Your task to perform on an android device: Open calendar and show me the first week of next month Image 0: 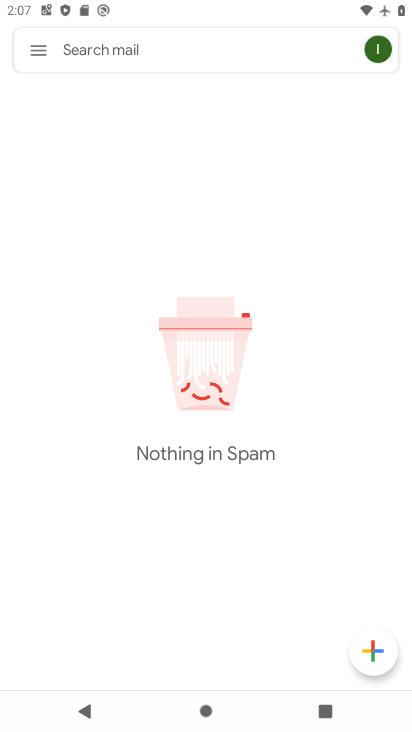
Step 0: press home button
Your task to perform on an android device: Open calendar and show me the first week of next month Image 1: 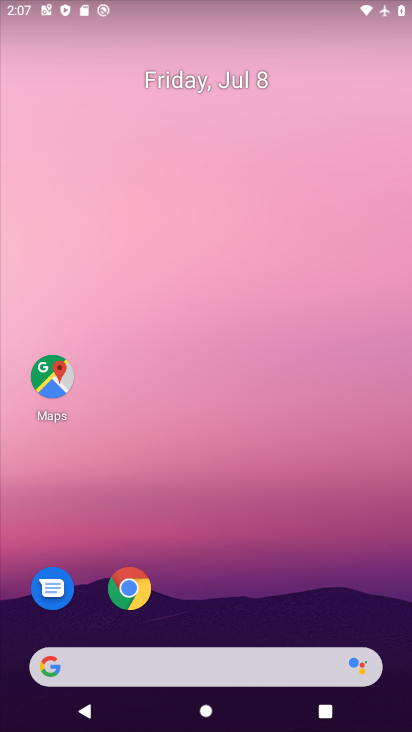
Step 1: drag from (278, 613) to (204, 7)
Your task to perform on an android device: Open calendar and show me the first week of next month Image 2: 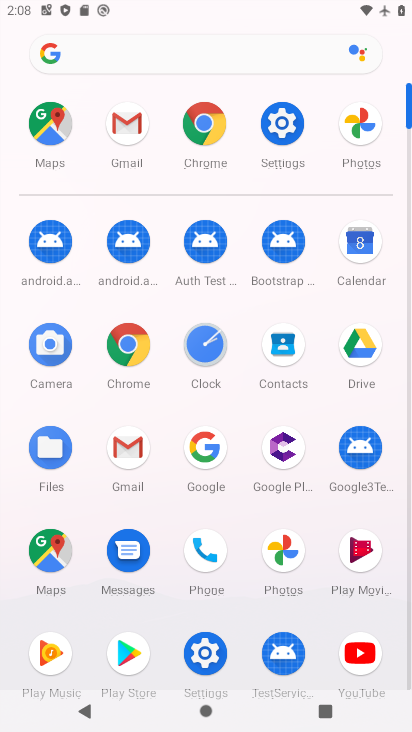
Step 2: click (362, 253)
Your task to perform on an android device: Open calendar and show me the first week of next month Image 3: 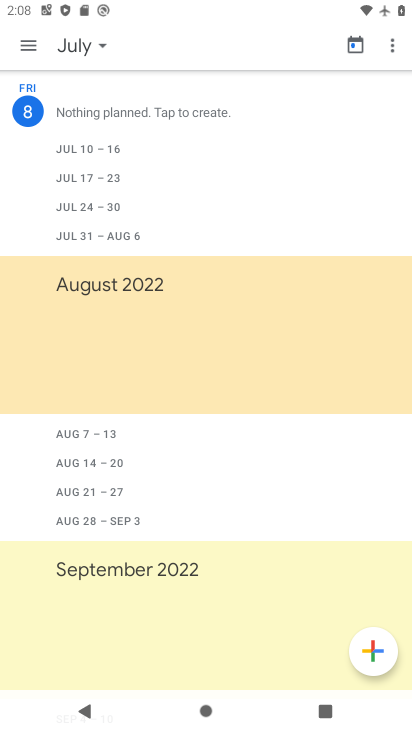
Step 3: click (81, 42)
Your task to perform on an android device: Open calendar and show me the first week of next month Image 4: 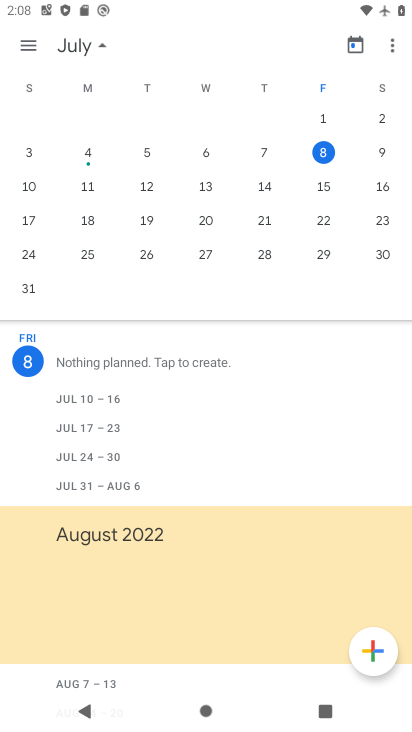
Step 4: drag from (364, 177) to (18, 169)
Your task to perform on an android device: Open calendar and show me the first week of next month Image 5: 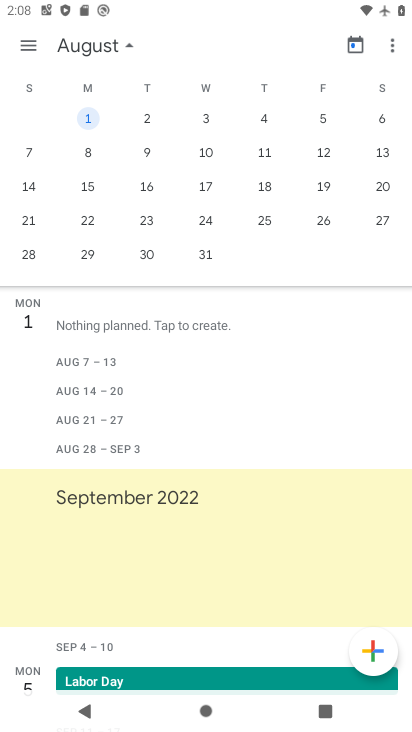
Step 5: click (145, 124)
Your task to perform on an android device: Open calendar and show me the first week of next month Image 6: 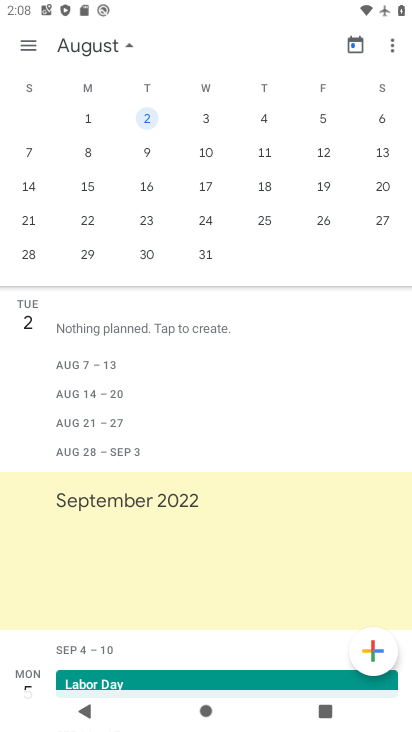
Step 6: click (206, 124)
Your task to perform on an android device: Open calendar and show me the first week of next month Image 7: 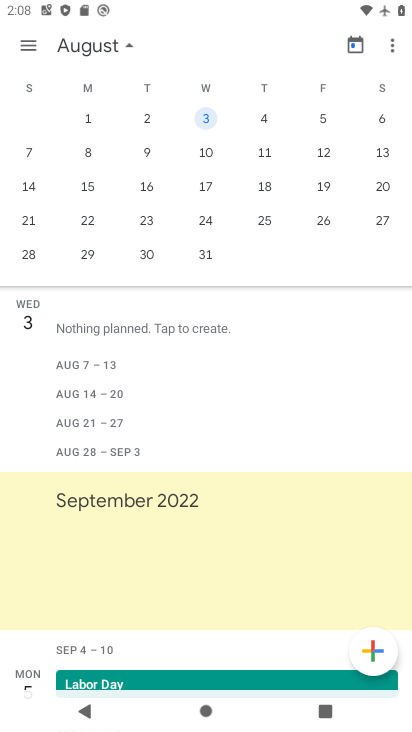
Step 7: click (267, 122)
Your task to perform on an android device: Open calendar and show me the first week of next month Image 8: 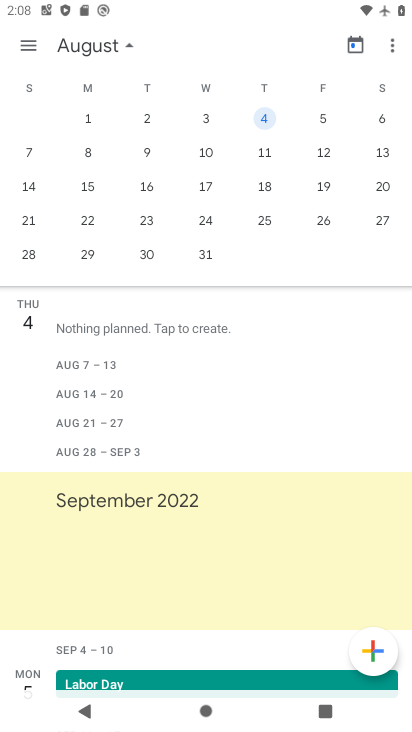
Step 8: click (326, 115)
Your task to perform on an android device: Open calendar and show me the first week of next month Image 9: 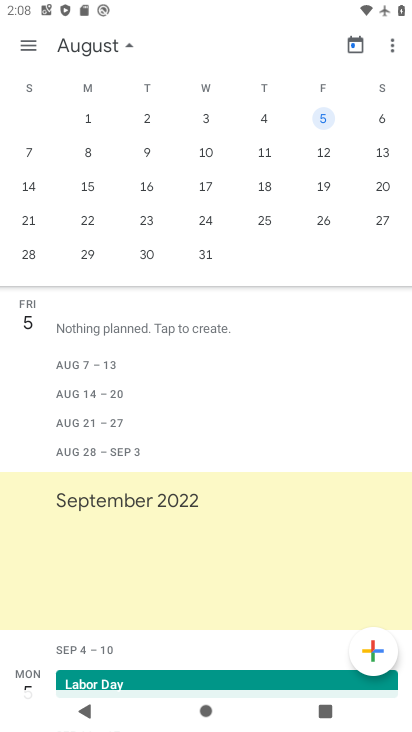
Step 9: click (381, 122)
Your task to perform on an android device: Open calendar and show me the first week of next month Image 10: 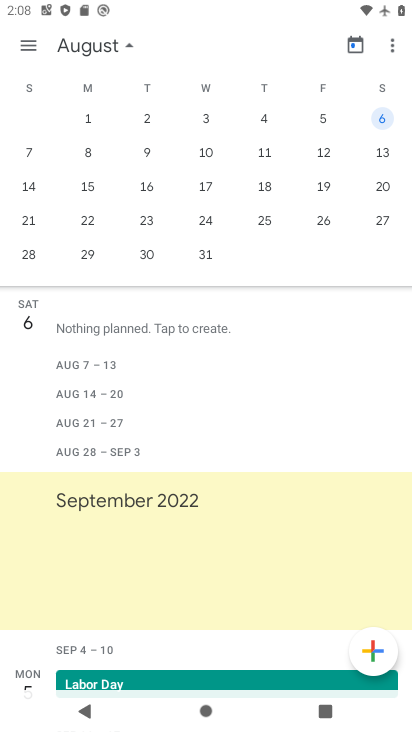
Step 10: click (29, 154)
Your task to perform on an android device: Open calendar and show me the first week of next month Image 11: 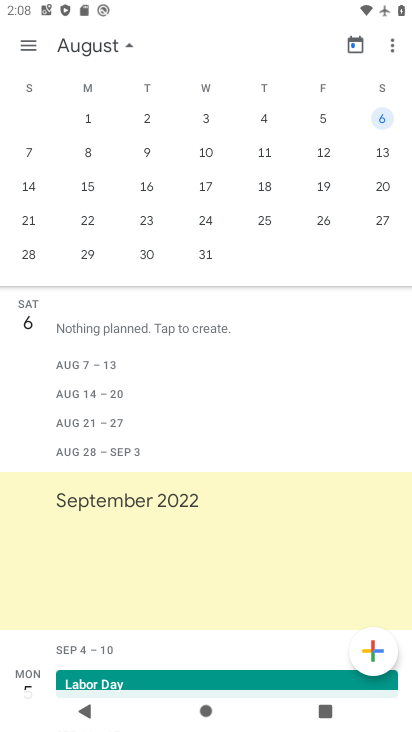
Step 11: click (30, 151)
Your task to perform on an android device: Open calendar and show me the first week of next month Image 12: 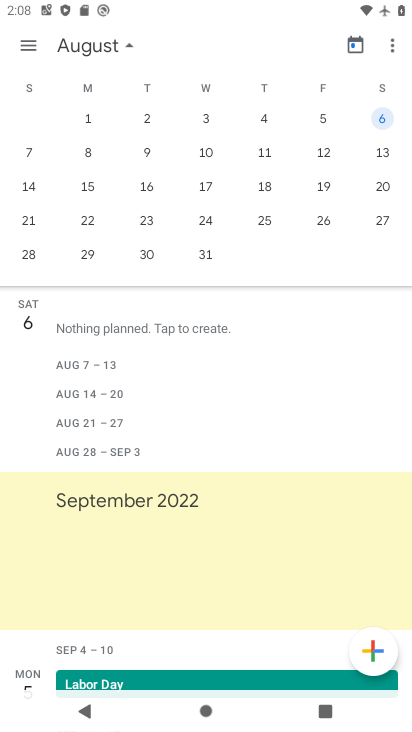
Step 12: click (27, 155)
Your task to perform on an android device: Open calendar and show me the first week of next month Image 13: 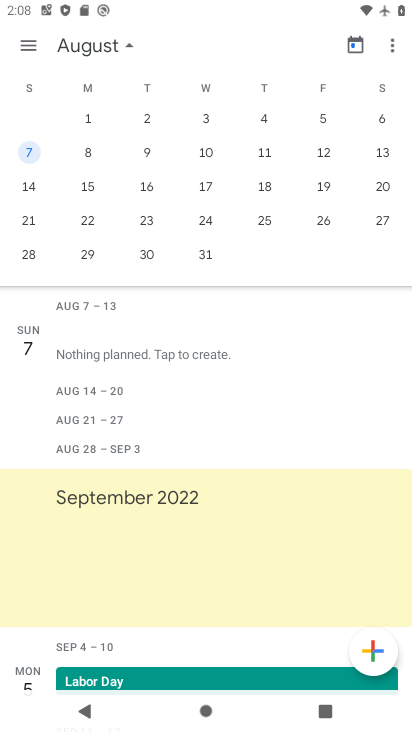
Step 13: task complete